Your task to perform on an android device: open sync settings in chrome Image 0: 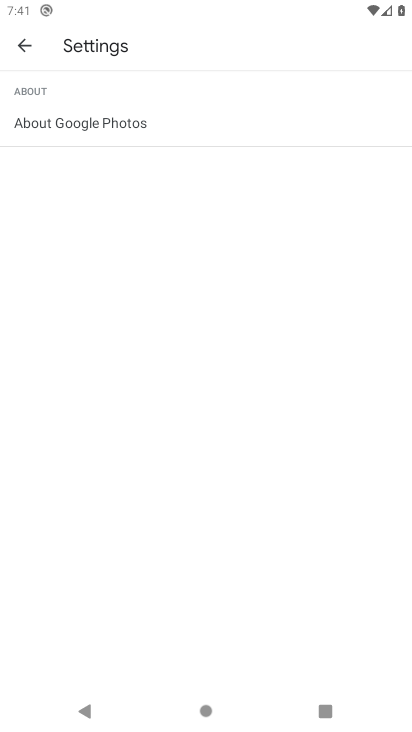
Step 0: press home button
Your task to perform on an android device: open sync settings in chrome Image 1: 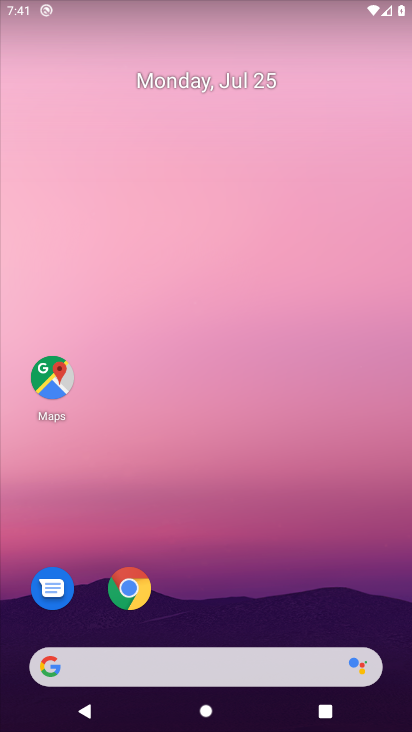
Step 1: drag from (241, 526) to (231, 236)
Your task to perform on an android device: open sync settings in chrome Image 2: 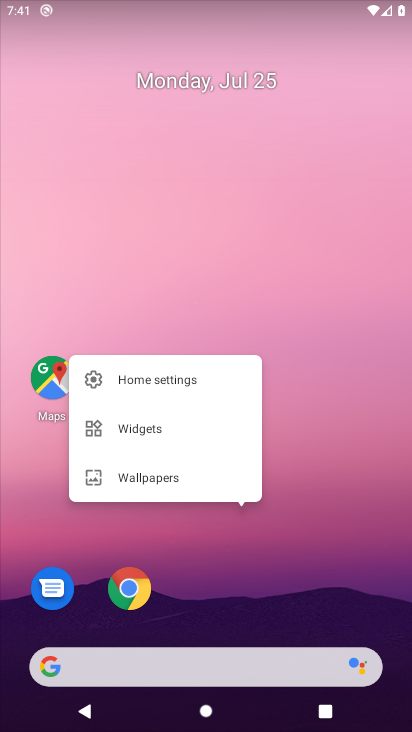
Step 2: drag from (314, 419) to (266, 97)
Your task to perform on an android device: open sync settings in chrome Image 3: 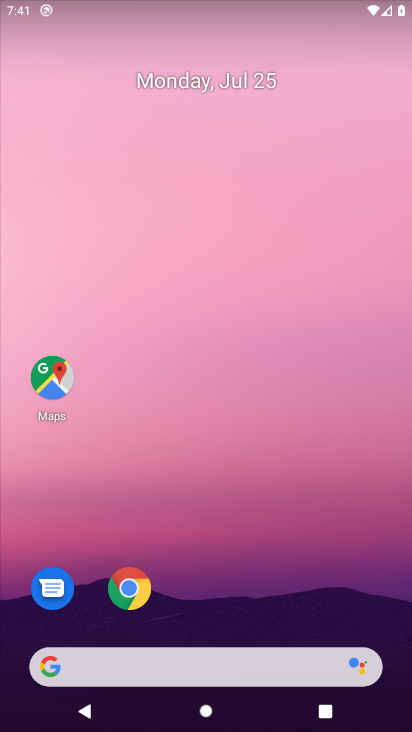
Step 3: drag from (258, 531) to (267, 320)
Your task to perform on an android device: open sync settings in chrome Image 4: 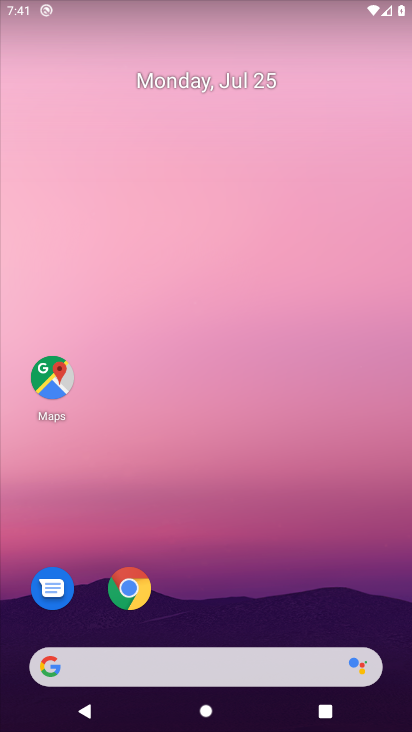
Step 4: drag from (290, 430) to (246, 190)
Your task to perform on an android device: open sync settings in chrome Image 5: 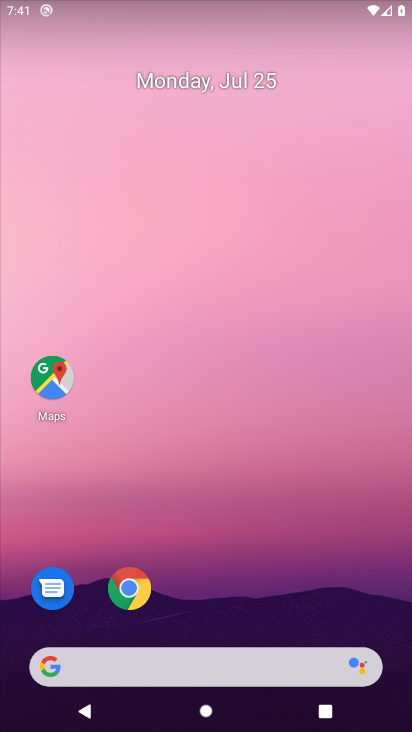
Step 5: click (128, 584)
Your task to perform on an android device: open sync settings in chrome Image 6: 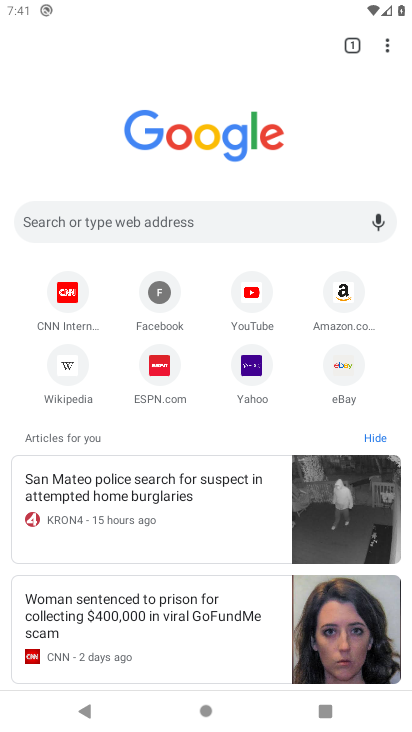
Step 6: task complete